Your task to perform on an android device: delete location history Image 0: 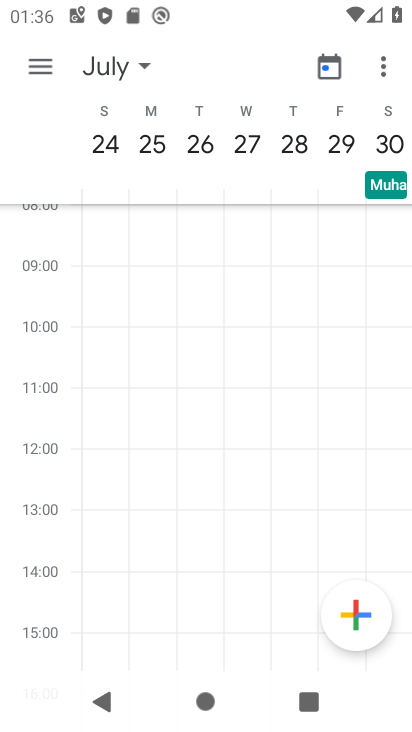
Step 0: press home button
Your task to perform on an android device: delete location history Image 1: 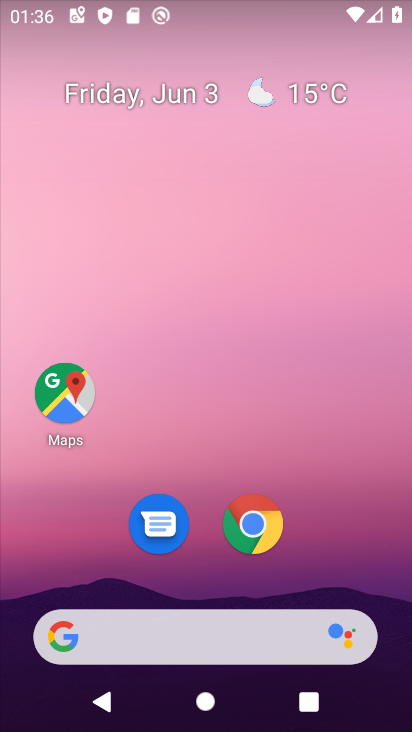
Step 1: click (62, 394)
Your task to perform on an android device: delete location history Image 2: 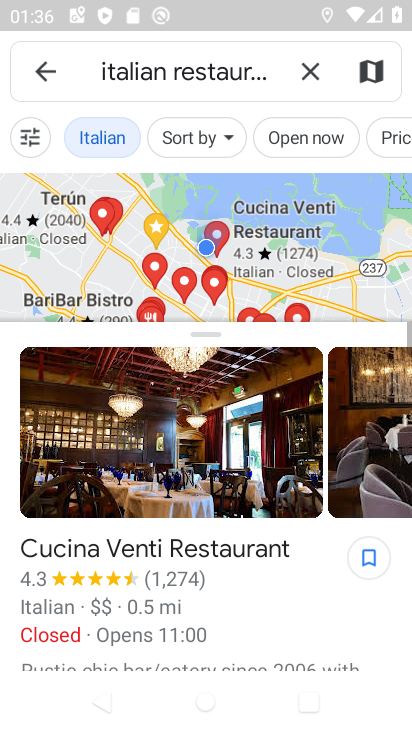
Step 2: click (45, 69)
Your task to perform on an android device: delete location history Image 3: 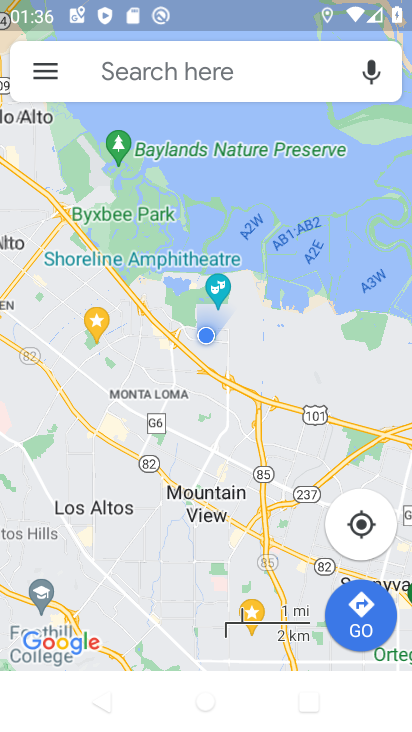
Step 3: click (45, 69)
Your task to perform on an android device: delete location history Image 4: 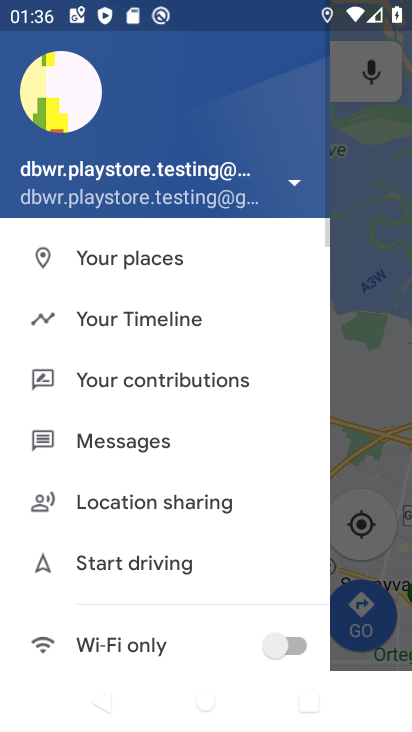
Step 4: click (183, 297)
Your task to perform on an android device: delete location history Image 5: 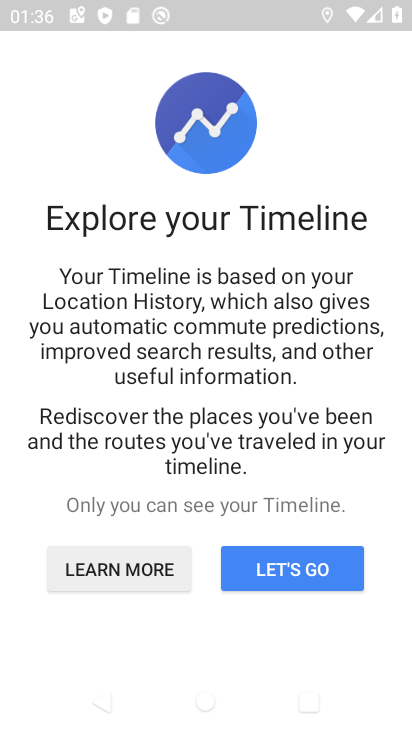
Step 5: click (335, 574)
Your task to perform on an android device: delete location history Image 6: 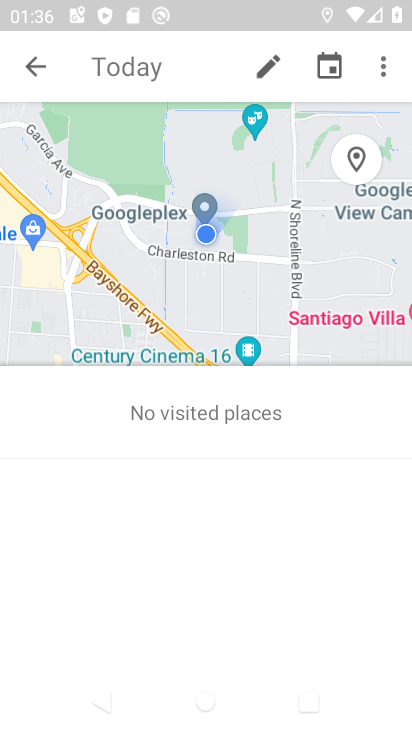
Step 6: click (381, 76)
Your task to perform on an android device: delete location history Image 7: 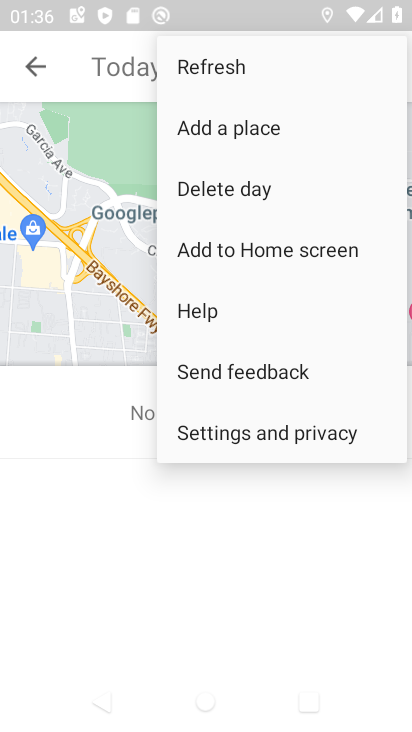
Step 7: click (298, 418)
Your task to perform on an android device: delete location history Image 8: 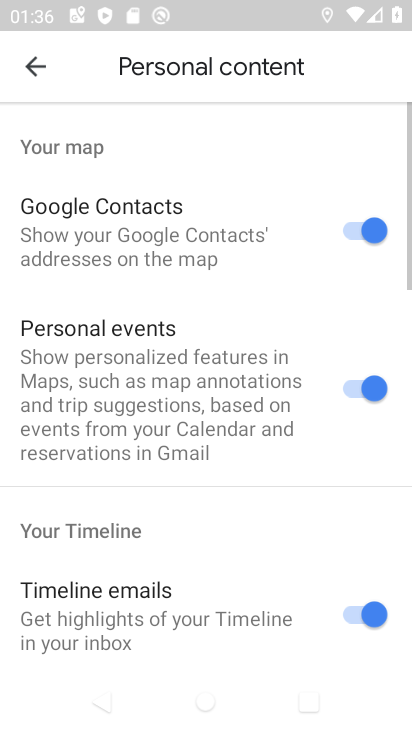
Step 8: drag from (215, 527) to (203, 3)
Your task to perform on an android device: delete location history Image 9: 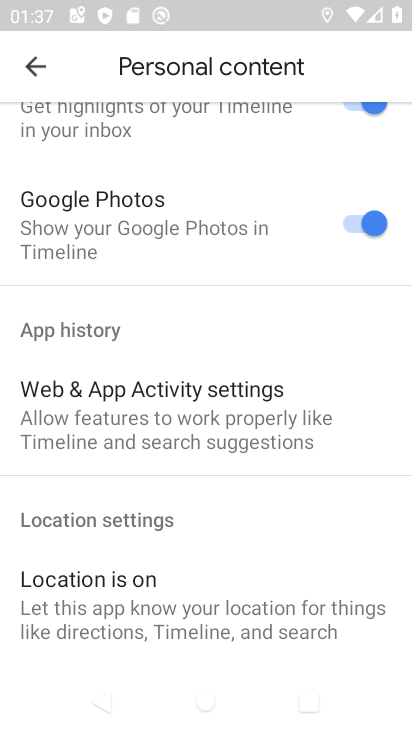
Step 9: drag from (220, 556) to (240, 104)
Your task to perform on an android device: delete location history Image 10: 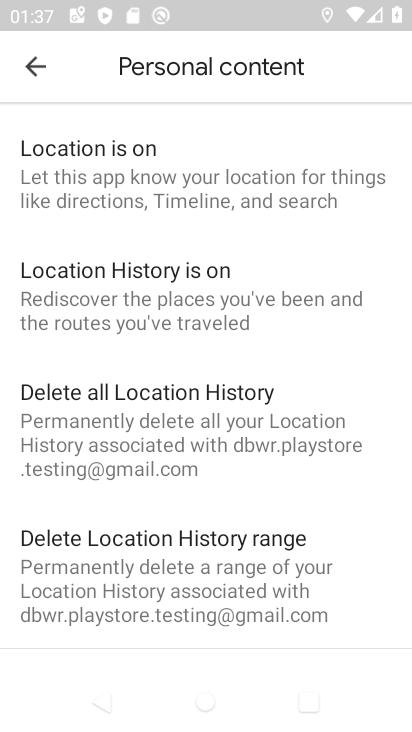
Step 10: click (227, 396)
Your task to perform on an android device: delete location history Image 11: 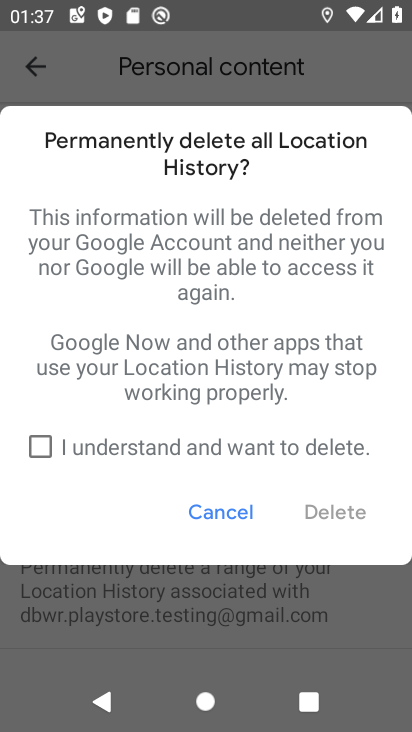
Step 11: click (34, 442)
Your task to perform on an android device: delete location history Image 12: 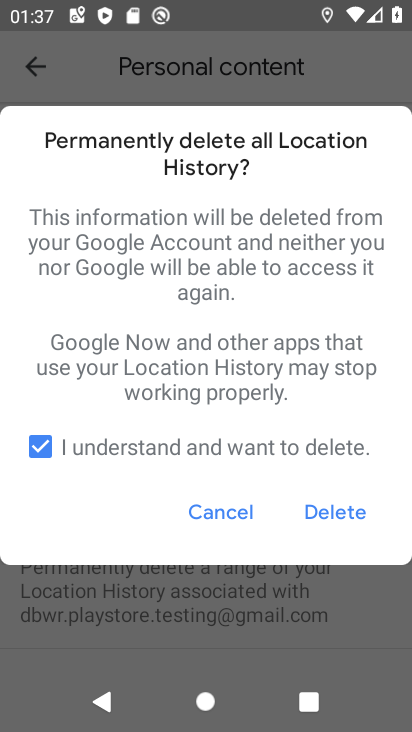
Step 12: click (334, 503)
Your task to perform on an android device: delete location history Image 13: 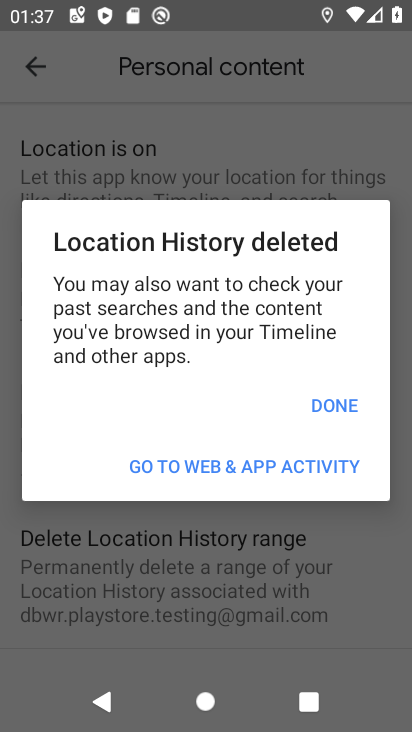
Step 13: click (343, 399)
Your task to perform on an android device: delete location history Image 14: 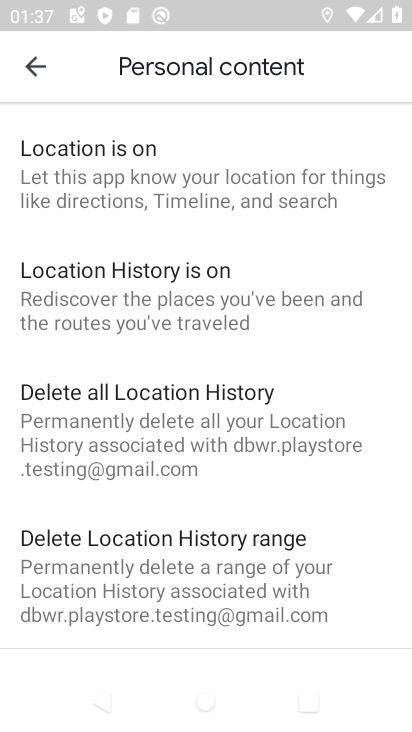
Step 14: task complete